Your task to perform on an android device: Open Chrome and go to the settings page Image 0: 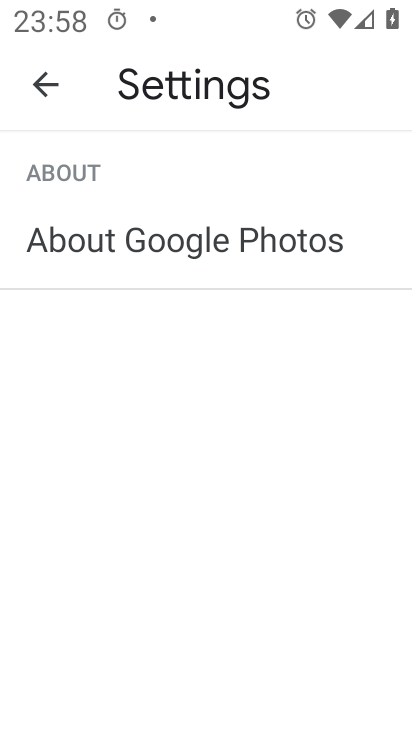
Step 0: press home button
Your task to perform on an android device: Open Chrome and go to the settings page Image 1: 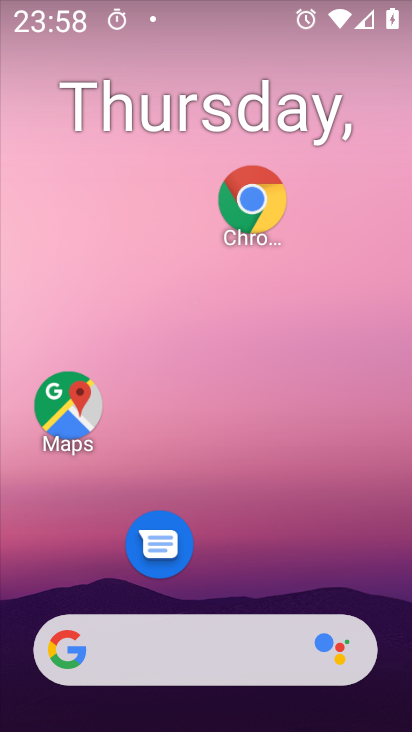
Step 1: click (253, 198)
Your task to perform on an android device: Open Chrome and go to the settings page Image 2: 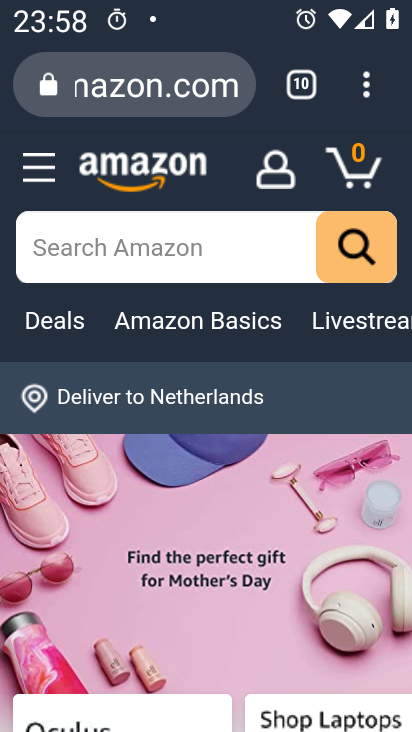
Step 2: click (353, 75)
Your task to perform on an android device: Open Chrome and go to the settings page Image 3: 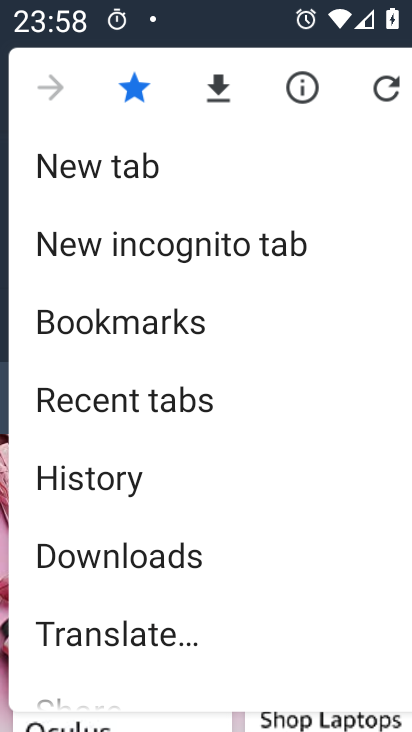
Step 3: drag from (101, 579) to (219, 91)
Your task to perform on an android device: Open Chrome and go to the settings page Image 4: 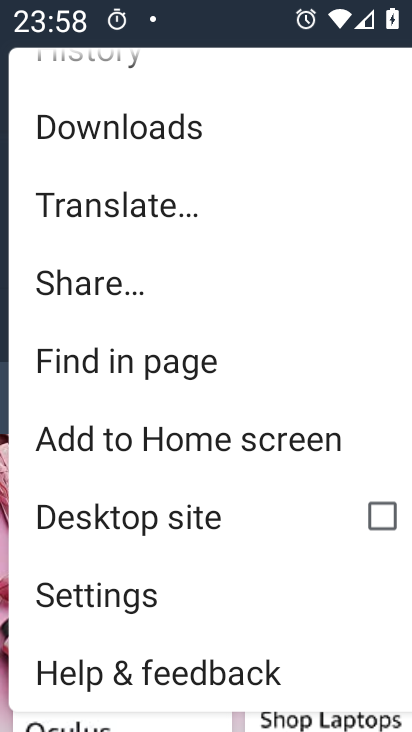
Step 4: click (83, 588)
Your task to perform on an android device: Open Chrome and go to the settings page Image 5: 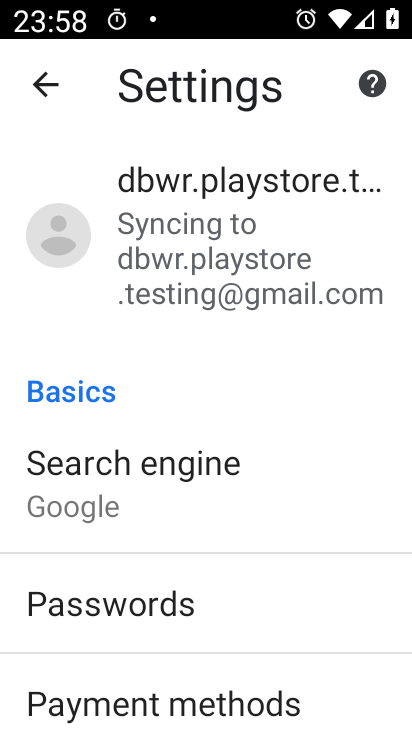
Step 5: task complete